Your task to perform on an android device: make emails show in primary in the gmail app Image 0: 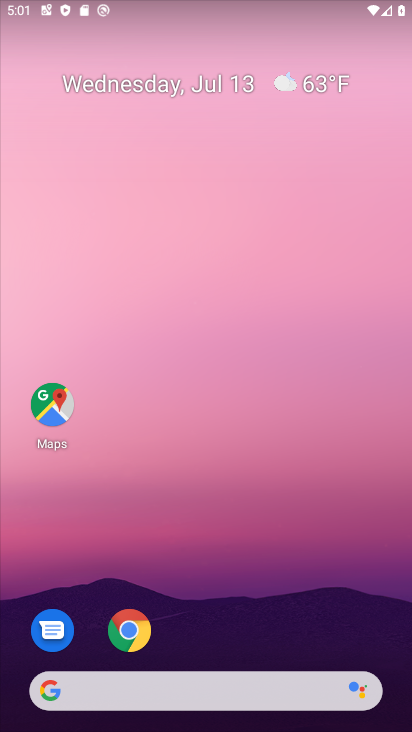
Step 0: press home button
Your task to perform on an android device: make emails show in primary in the gmail app Image 1: 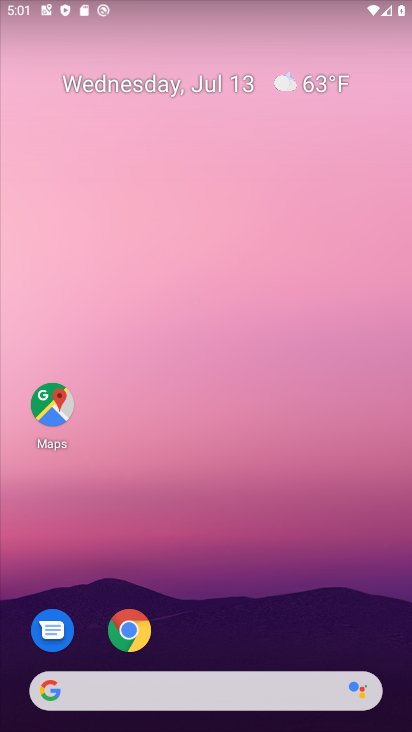
Step 1: drag from (230, 658) to (315, 32)
Your task to perform on an android device: make emails show in primary in the gmail app Image 2: 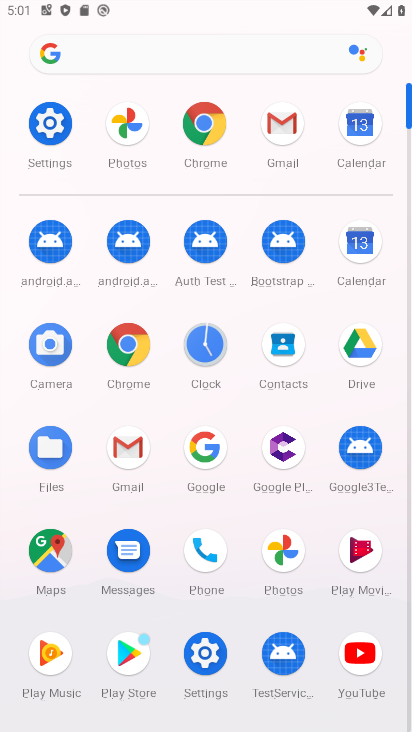
Step 2: click (282, 129)
Your task to perform on an android device: make emails show in primary in the gmail app Image 3: 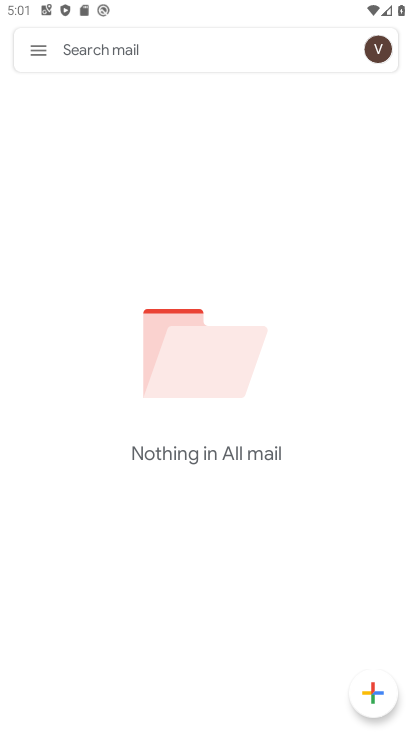
Step 3: click (33, 54)
Your task to perform on an android device: make emails show in primary in the gmail app Image 4: 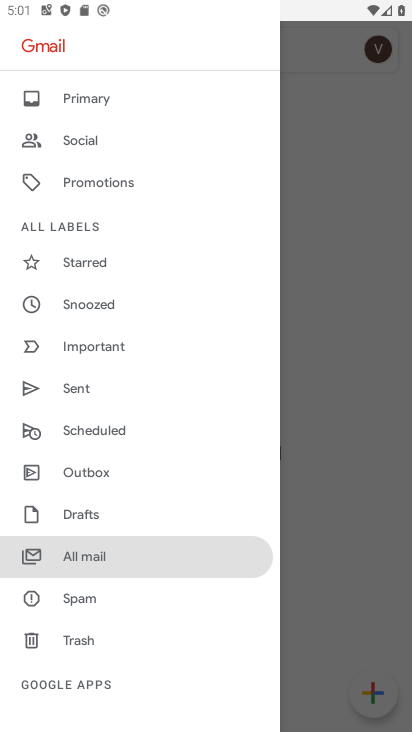
Step 4: drag from (190, 646) to (209, 134)
Your task to perform on an android device: make emails show in primary in the gmail app Image 5: 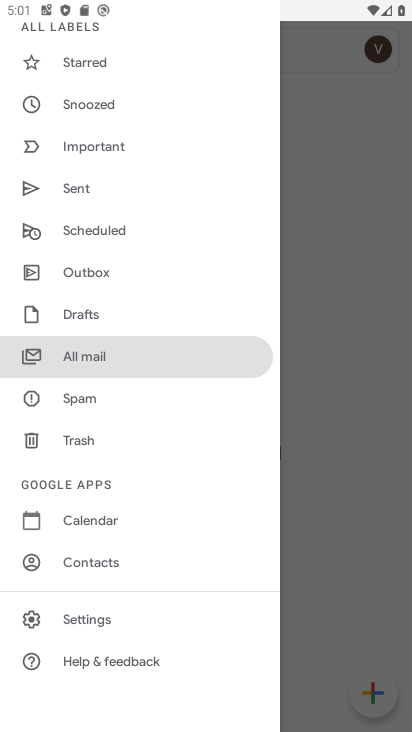
Step 5: click (83, 628)
Your task to perform on an android device: make emails show in primary in the gmail app Image 6: 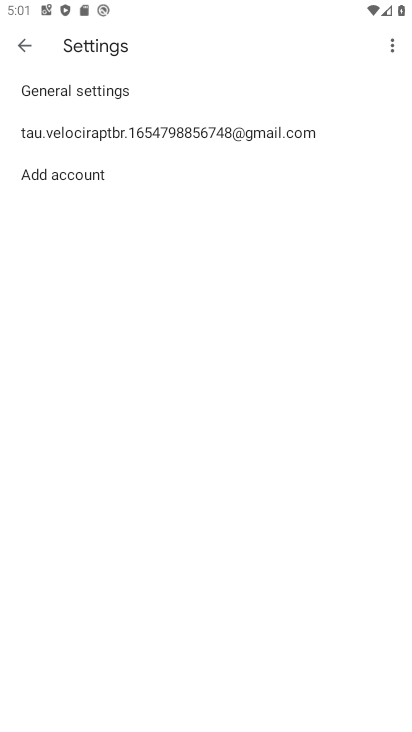
Step 6: click (132, 137)
Your task to perform on an android device: make emails show in primary in the gmail app Image 7: 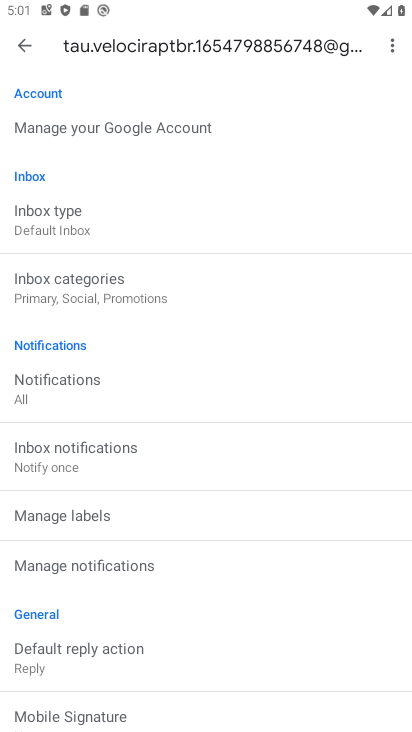
Step 7: click (68, 285)
Your task to perform on an android device: make emails show in primary in the gmail app Image 8: 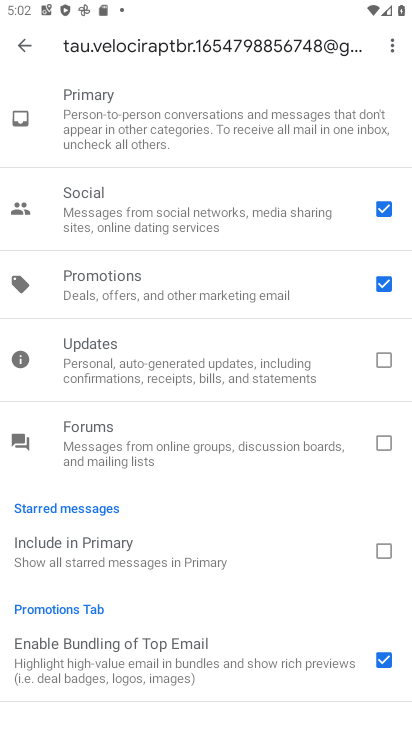
Step 8: click (388, 199)
Your task to perform on an android device: make emails show in primary in the gmail app Image 9: 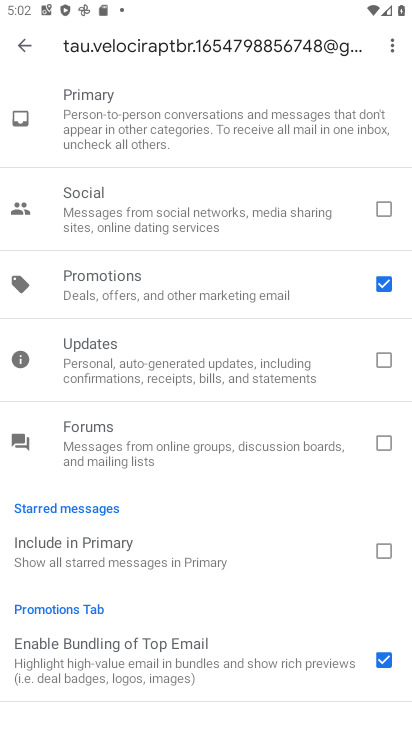
Step 9: click (391, 285)
Your task to perform on an android device: make emails show in primary in the gmail app Image 10: 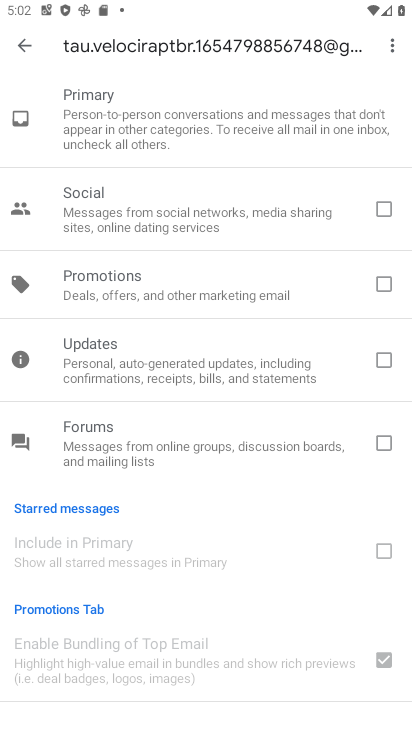
Step 10: task complete